Your task to perform on an android device: Open settings Image 0: 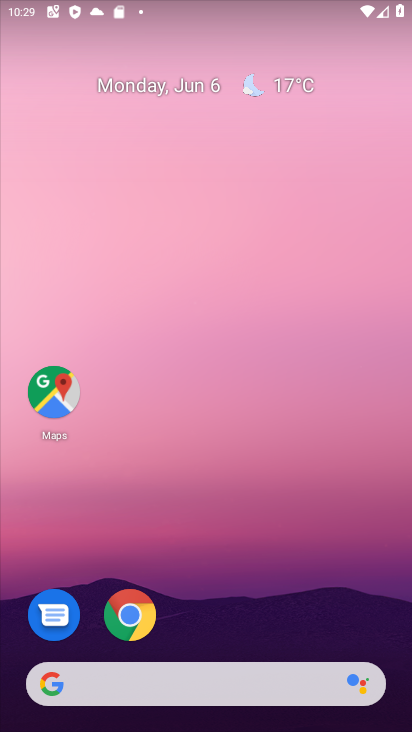
Step 0: drag from (243, 557) to (273, 0)
Your task to perform on an android device: Open settings Image 1: 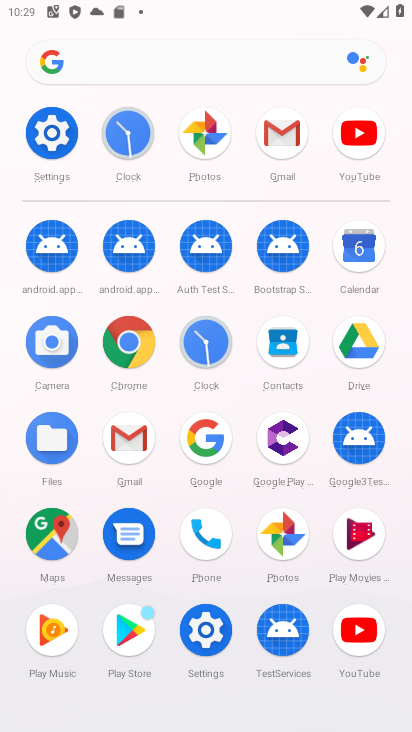
Step 1: click (53, 125)
Your task to perform on an android device: Open settings Image 2: 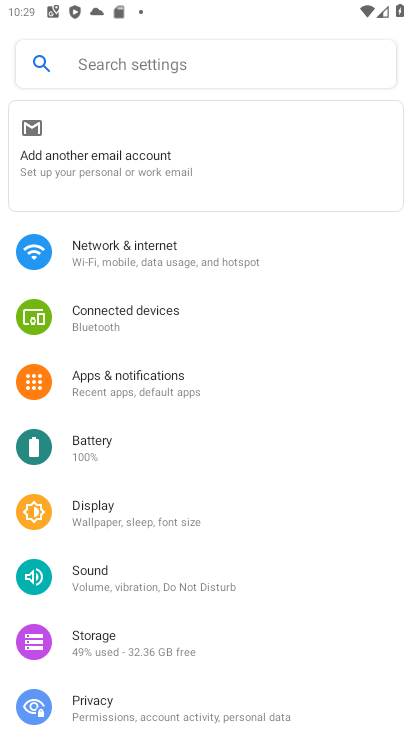
Step 2: task complete